Your task to perform on an android device: Go to Wikipedia Image 0: 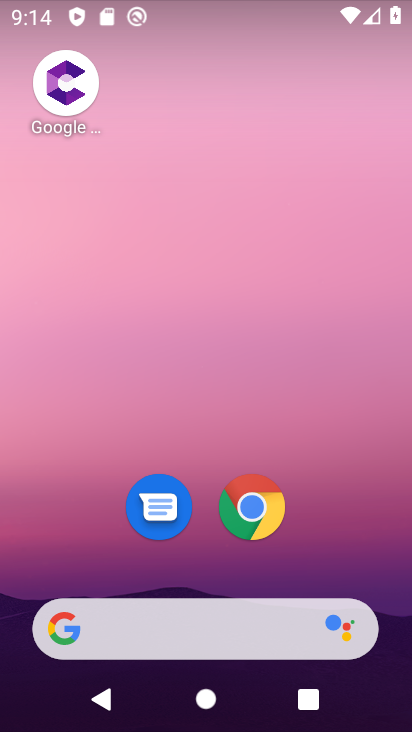
Step 0: drag from (347, 500) to (303, 147)
Your task to perform on an android device: Go to Wikipedia Image 1: 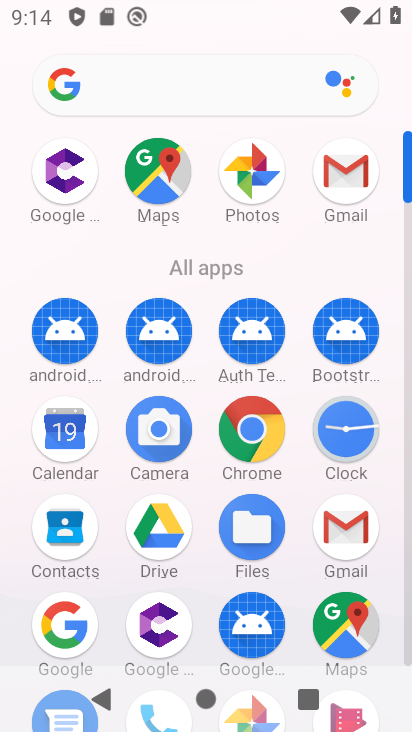
Step 1: click (242, 430)
Your task to perform on an android device: Go to Wikipedia Image 2: 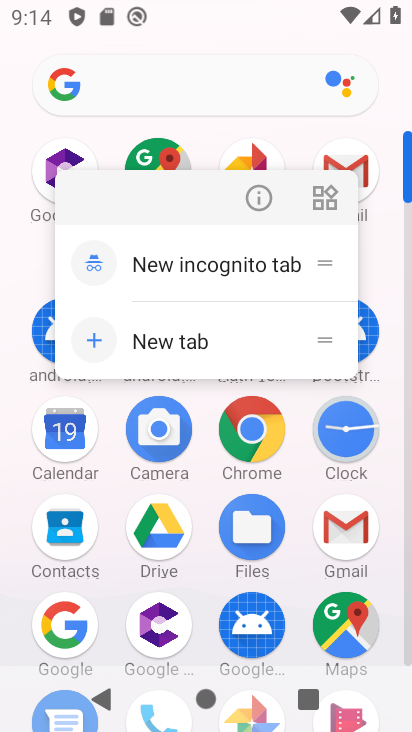
Step 2: click (254, 427)
Your task to perform on an android device: Go to Wikipedia Image 3: 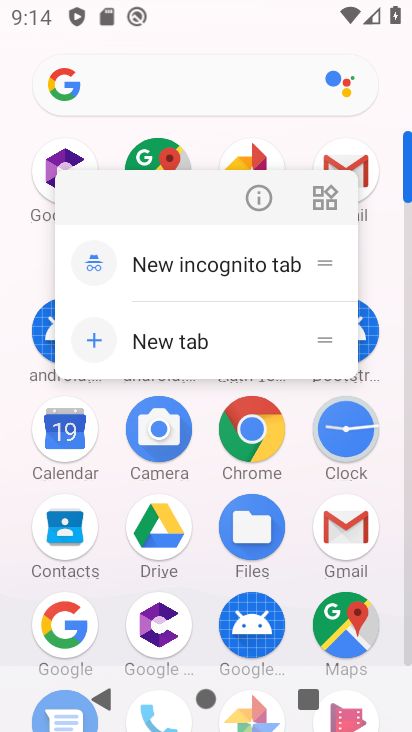
Step 3: click (268, 446)
Your task to perform on an android device: Go to Wikipedia Image 4: 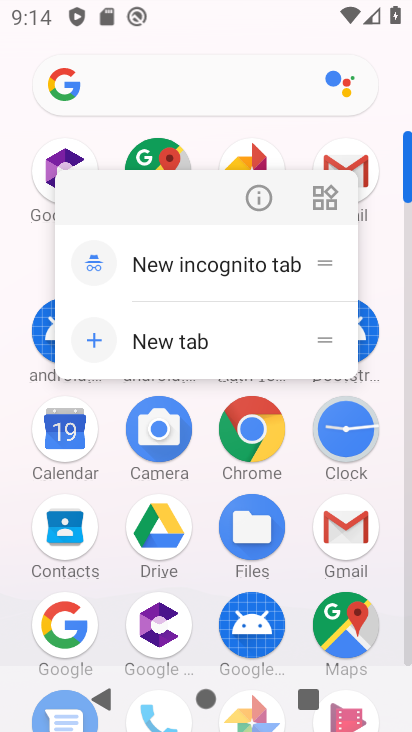
Step 4: click (236, 449)
Your task to perform on an android device: Go to Wikipedia Image 5: 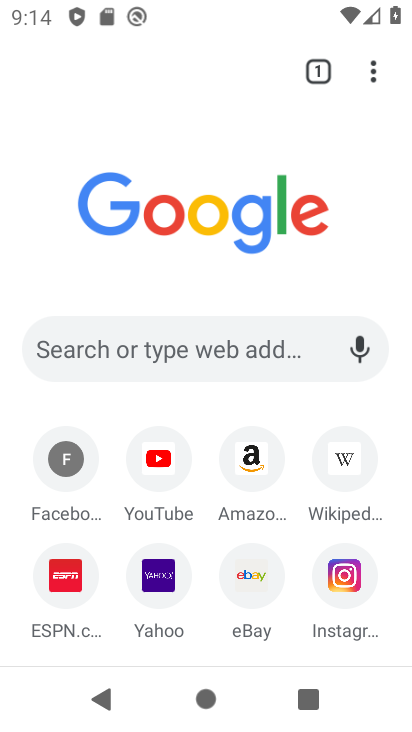
Step 5: click (352, 465)
Your task to perform on an android device: Go to Wikipedia Image 6: 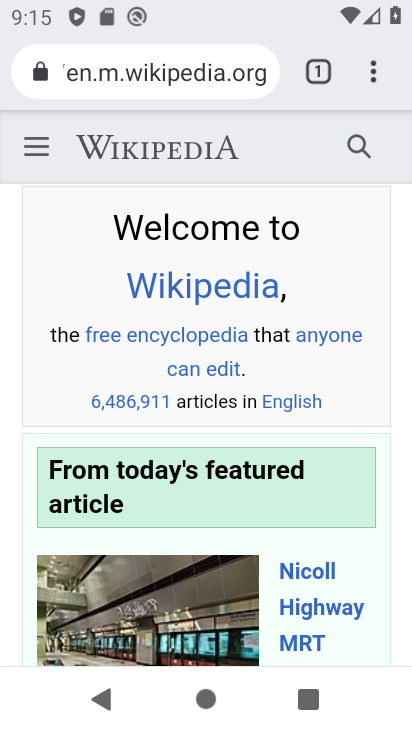
Step 6: task complete